Your task to perform on an android device: turn on airplane mode Image 0: 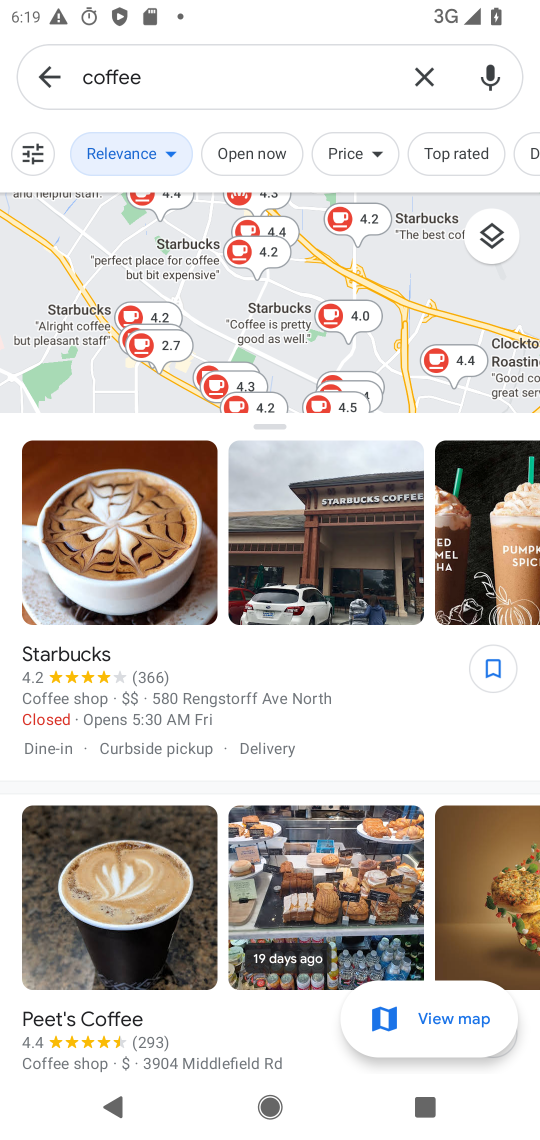
Step 0: press home button
Your task to perform on an android device: turn on airplane mode Image 1: 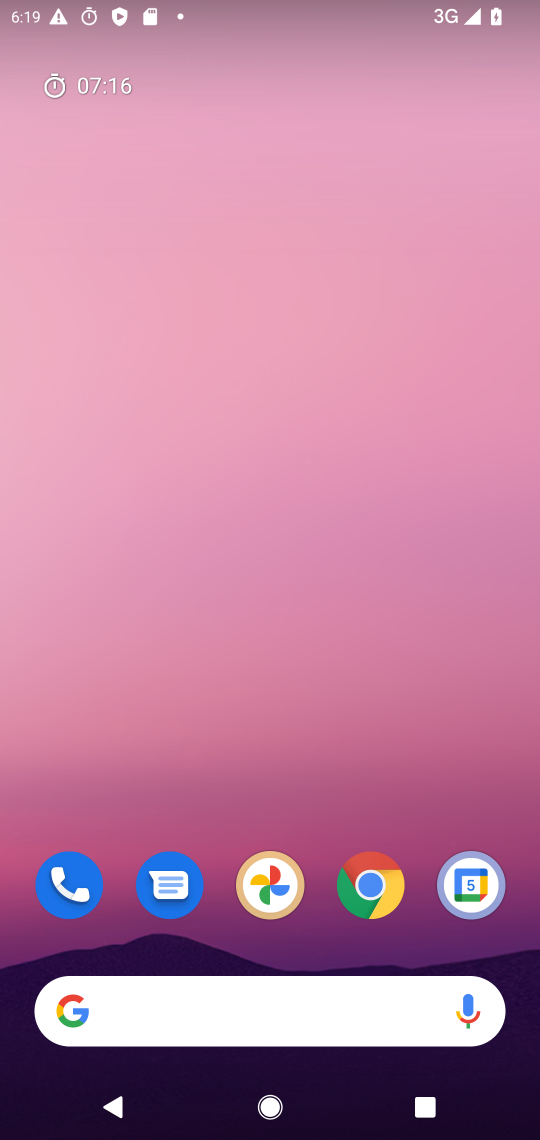
Step 1: drag from (238, 946) to (283, 79)
Your task to perform on an android device: turn on airplane mode Image 2: 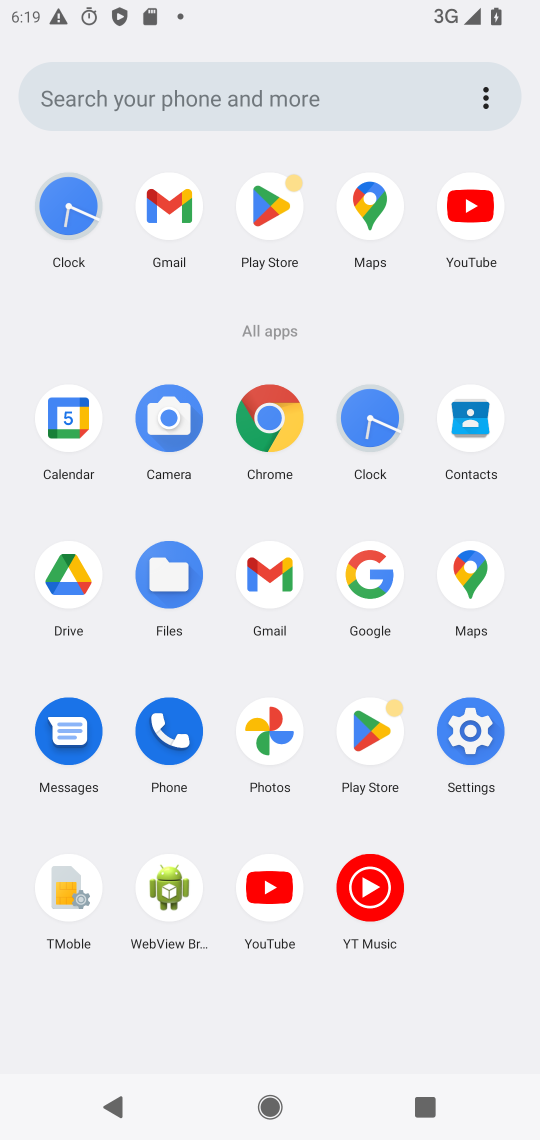
Step 2: click (473, 751)
Your task to perform on an android device: turn on airplane mode Image 3: 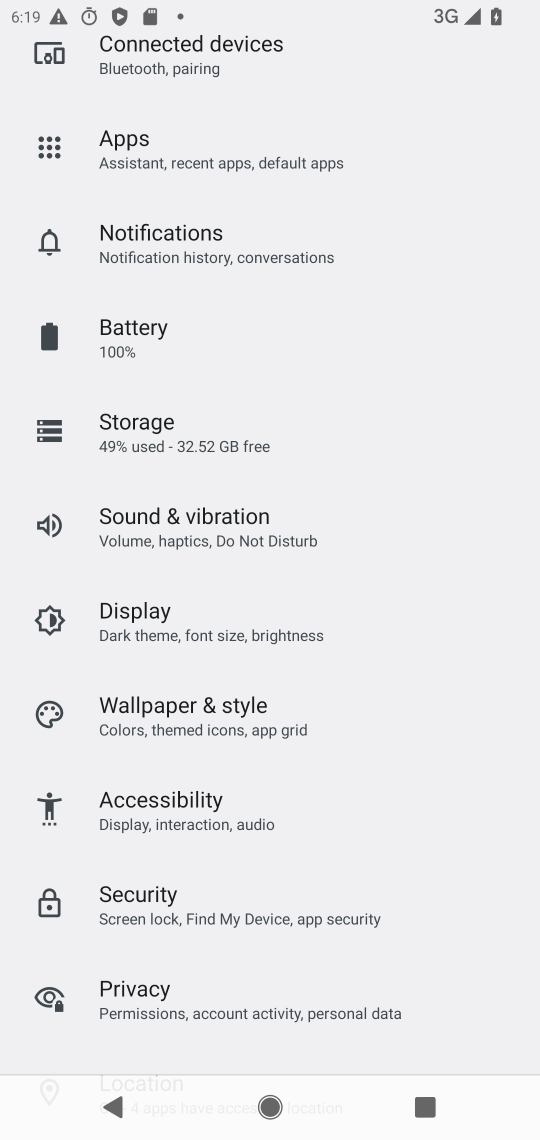
Step 3: drag from (175, 113) to (259, 944)
Your task to perform on an android device: turn on airplane mode Image 4: 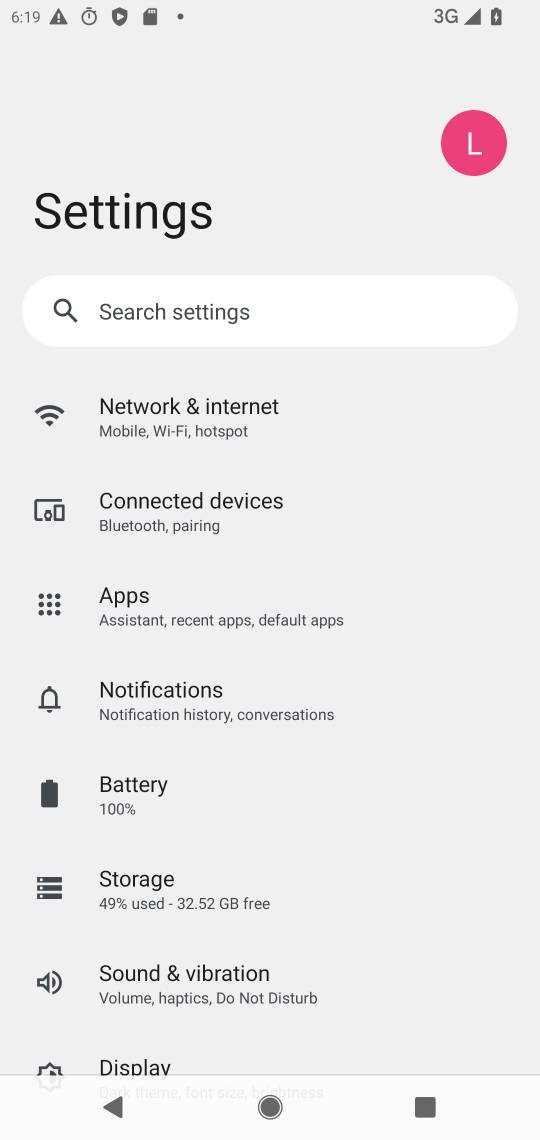
Step 4: click (182, 429)
Your task to perform on an android device: turn on airplane mode Image 5: 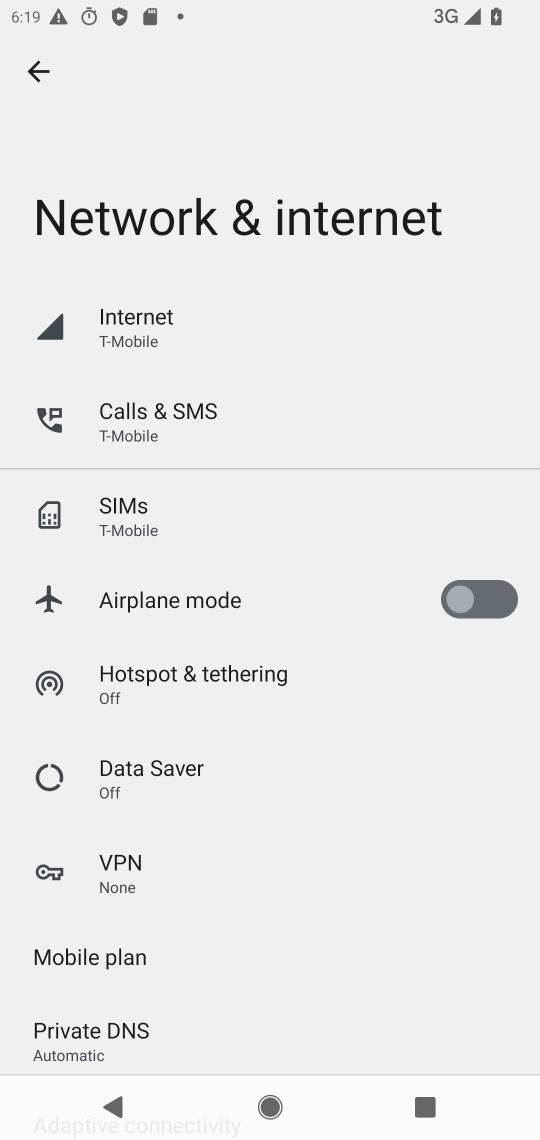
Step 5: click (520, 599)
Your task to perform on an android device: turn on airplane mode Image 6: 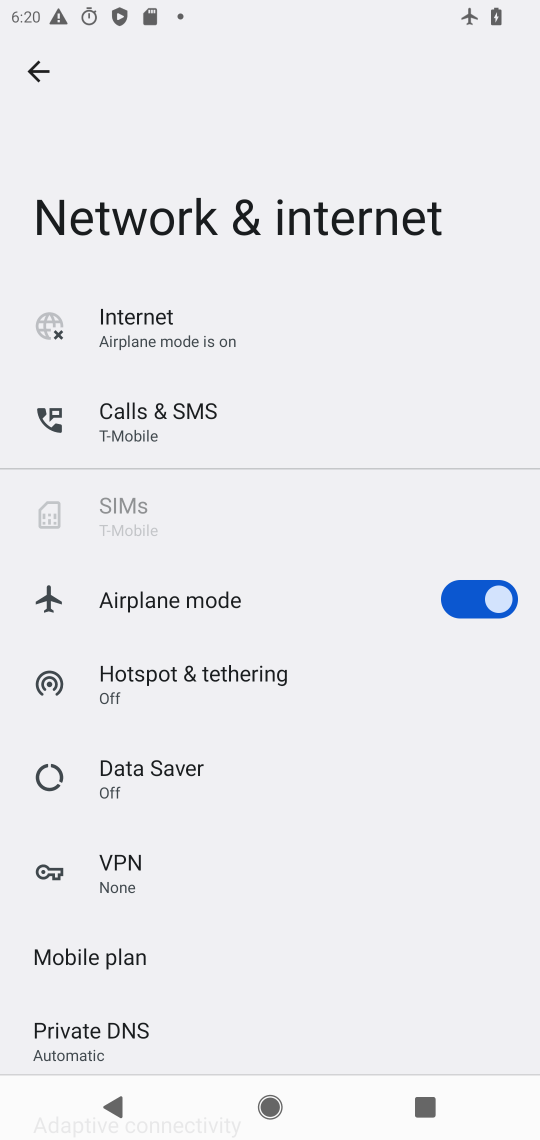
Step 6: task complete